Your task to perform on an android device: open wifi settings Image 0: 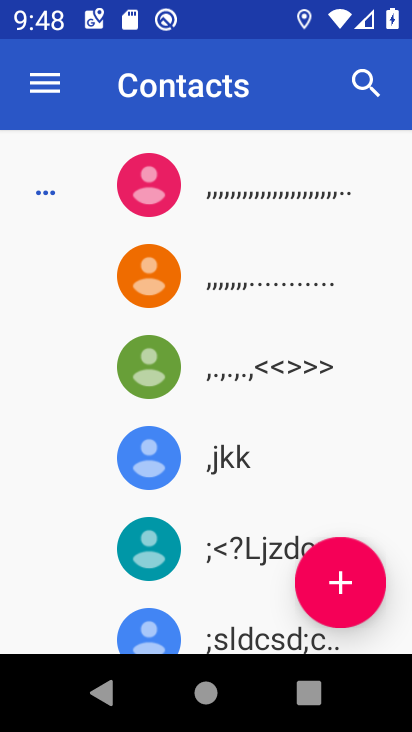
Step 0: press home button
Your task to perform on an android device: open wifi settings Image 1: 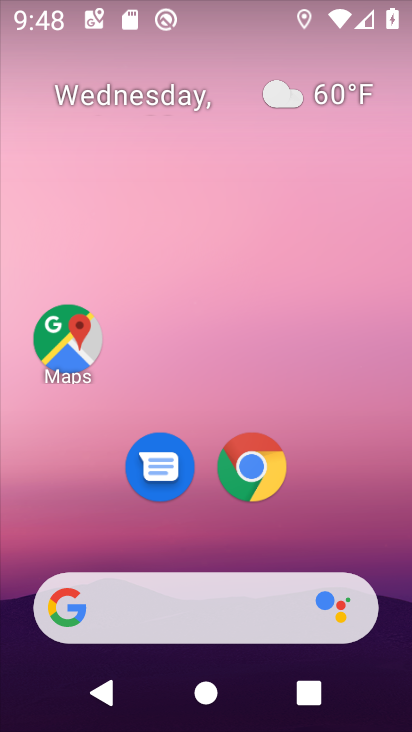
Step 1: drag from (352, 404) to (294, 42)
Your task to perform on an android device: open wifi settings Image 2: 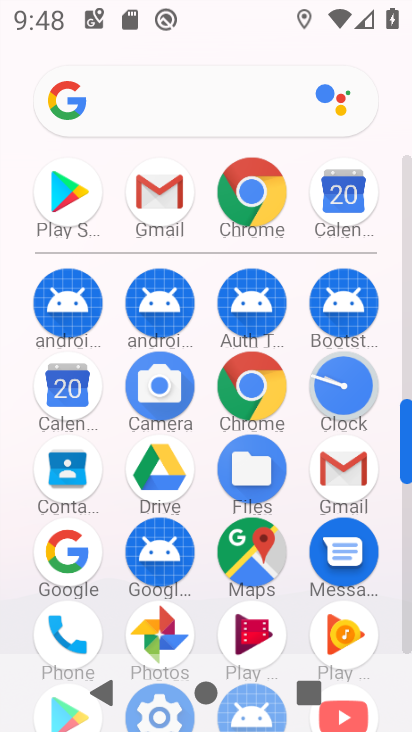
Step 2: drag from (381, 507) to (361, 234)
Your task to perform on an android device: open wifi settings Image 3: 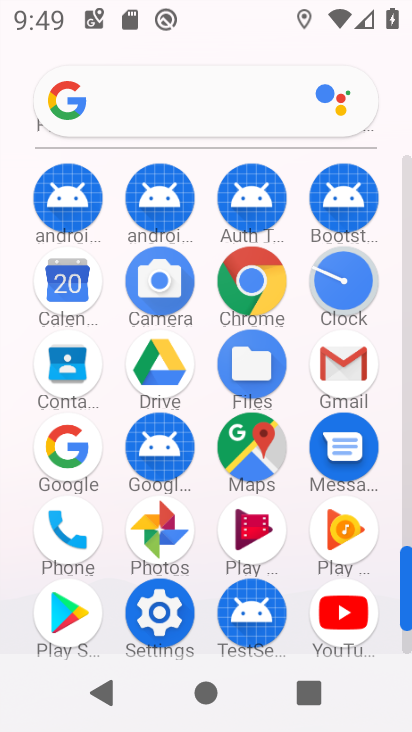
Step 3: click (174, 614)
Your task to perform on an android device: open wifi settings Image 4: 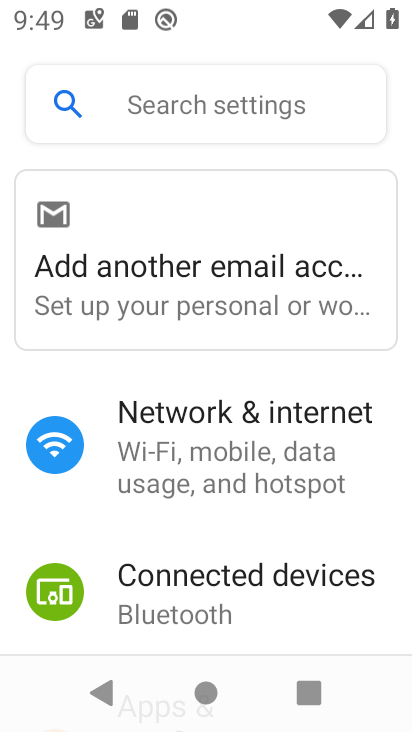
Step 4: click (247, 438)
Your task to perform on an android device: open wifi settings Image 5: 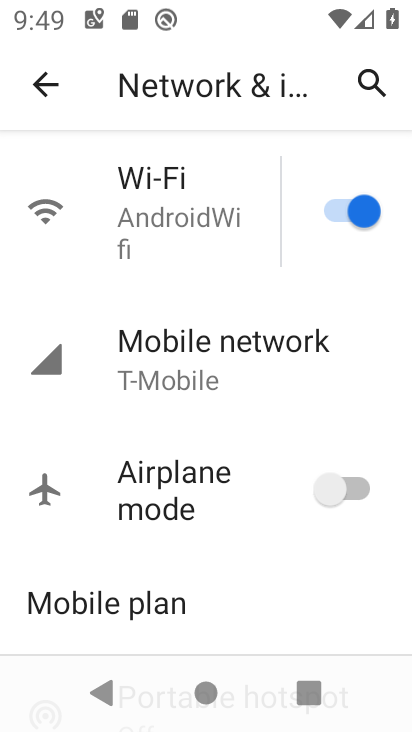
Step 5: click (175, 188)
Your task to perform on an android device: open wifi settings Image 6: 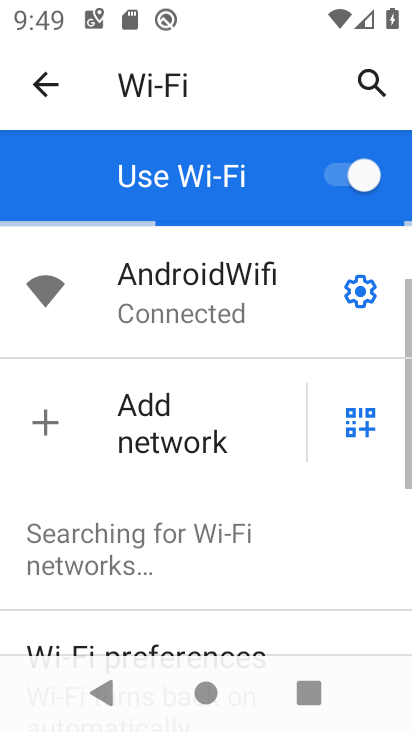
Step 6: task complete